Your task to perform on an android device: turn notification dots off Image 0: 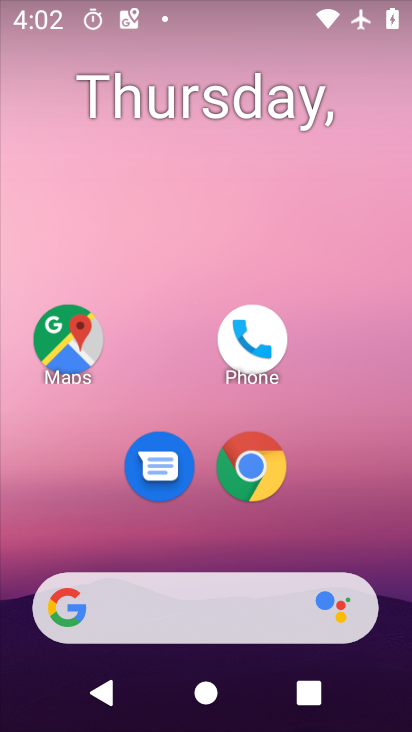
Step 0: drag from (201, 548) to (251, 98)
Your task to perform on an android device: turn notification dots off Image 1: 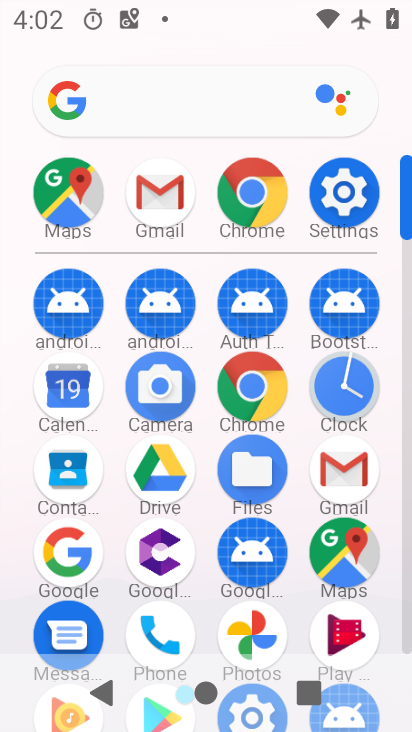
Step 1: click (345, 194)
Your task to perform on an android device: turn notification dots off Image 2: 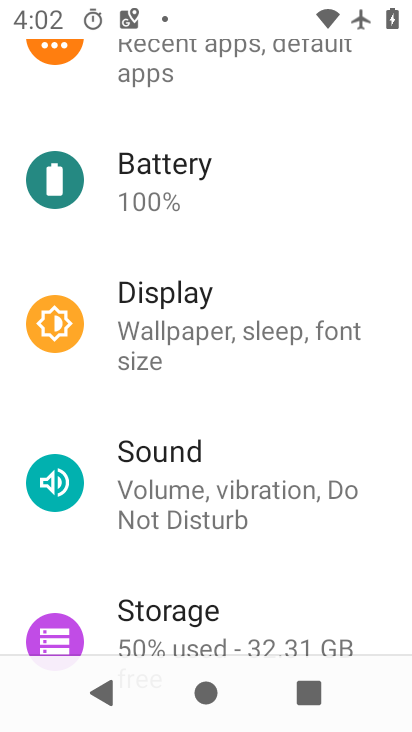
Step 2: drag from (200, 501) to (304, 107)
Your task to perform on an android device: turn notification dots off Image 3: 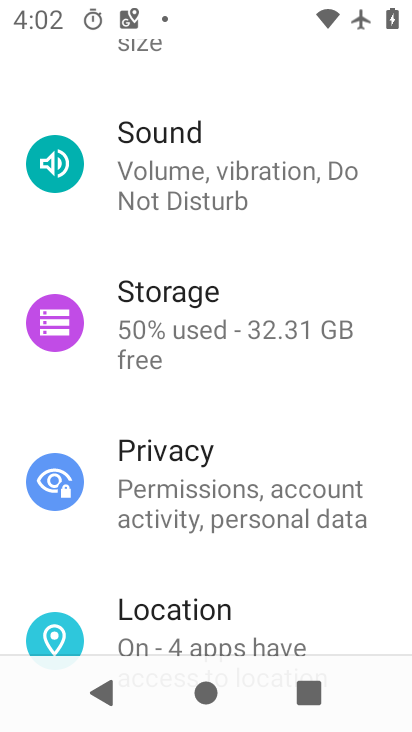
Step 3: drag from (225, 578) to (301, 268)
Your task to perform on an android device: turn notification dots off Image 4: 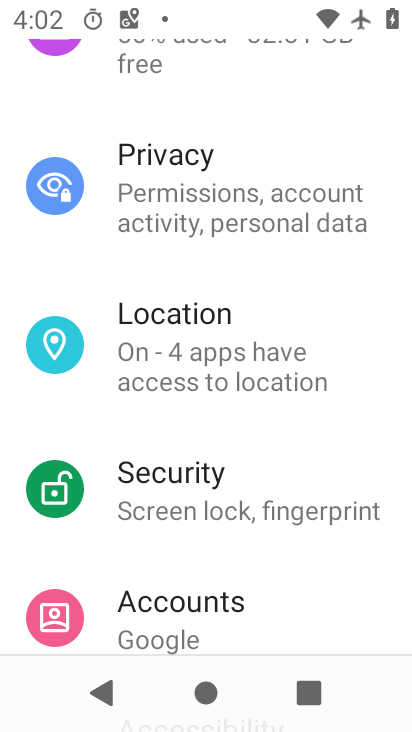
Step 4: drag from (214, 163) to (229, 729)
Your task to perform on an android device: turn notification dots off Image 5: 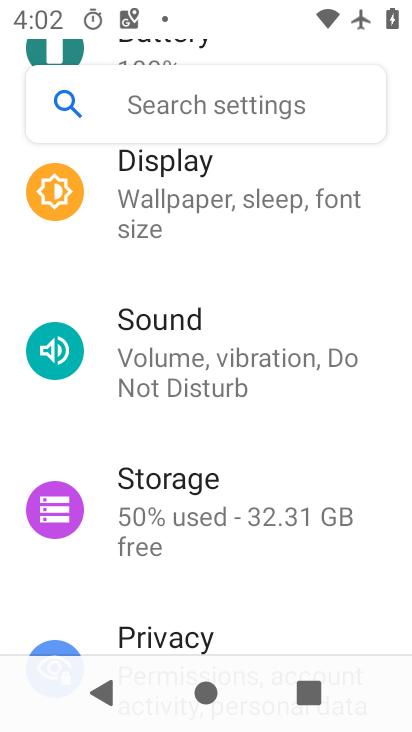
Step 5: drag from (274, 259) to (281, 730)
Your task to perform on an android device: turn notification dots off Image 6: 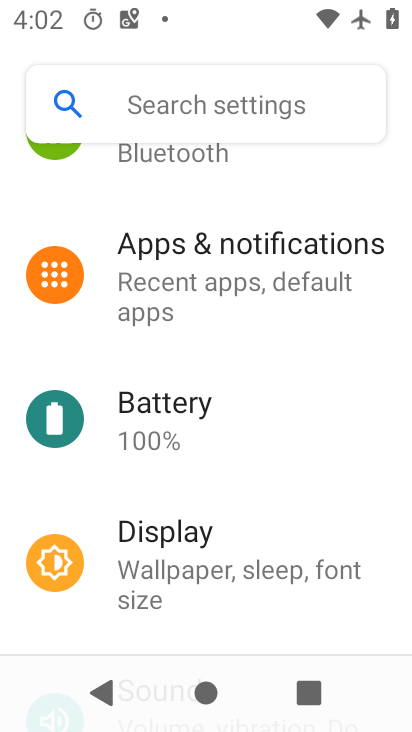
Step 6: click (205, 285)
Your task to perform on an android device: turn notification dots off Image 7: 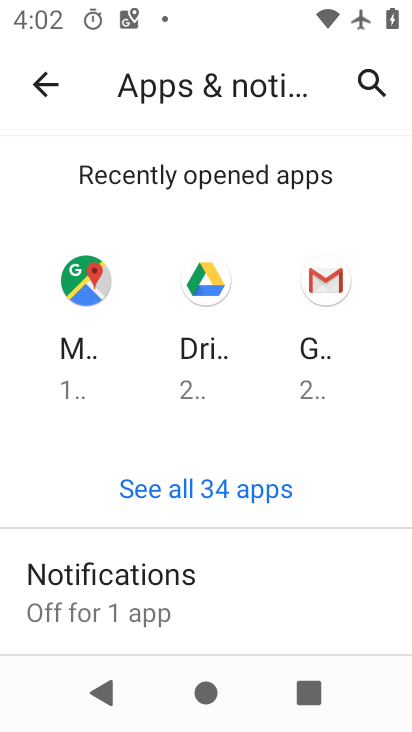
Step 7: click (153, 585)
Your task to perform on an android device: turn notification dots off Image 8: 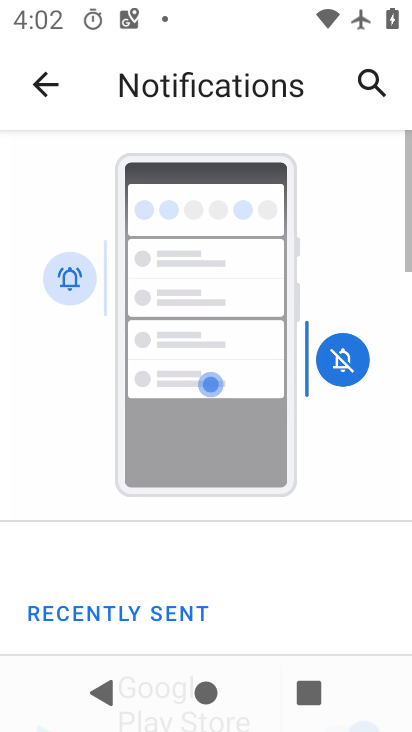
Step 8: drag from (221, 564) to (260, 157)
Your task to perform on an android device: turn notification dots off Image 9: 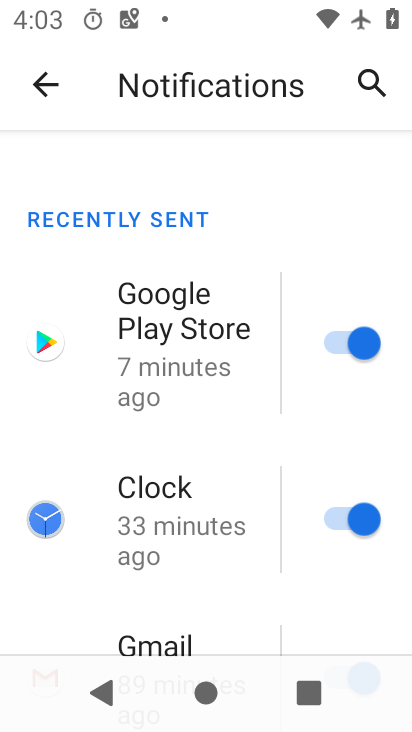
Step 9: drag from (209, 562) to (215, 149)
Your task to perform on an android device: turn notification dots off Image 10: 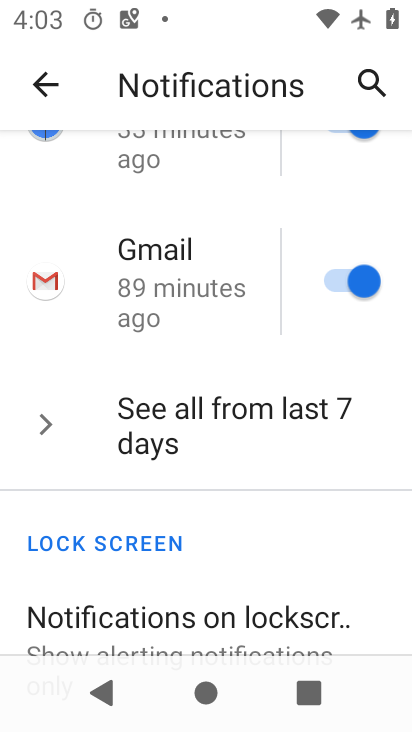
Step 10: drag from (222, 581) to (259, 295)
Your task to perform on an android device: turn notification dots off Image 11: 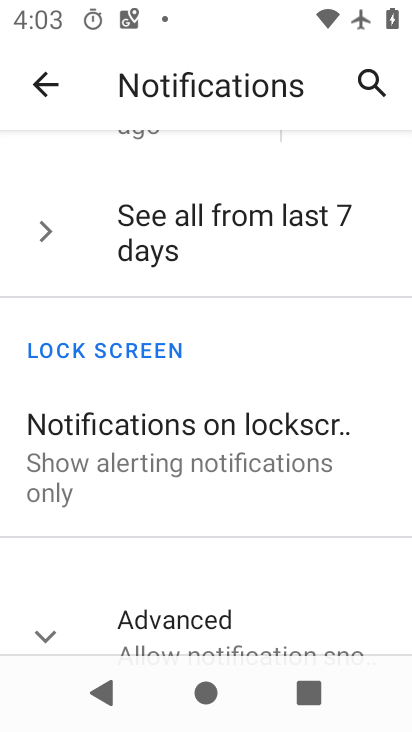
Step 11: drag from (242, 620) to (249, 310)
Your task to perform on an android device: turn notification dots off Image 12: 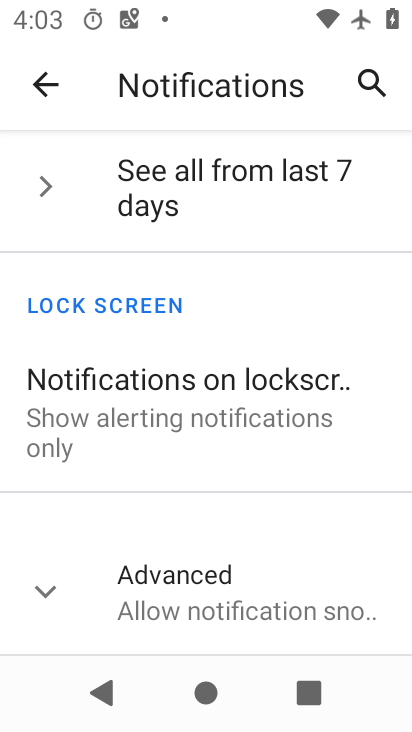
Step 12: click (196, 588)
Your task to perform on an android device: turn notification dots off Image 13: 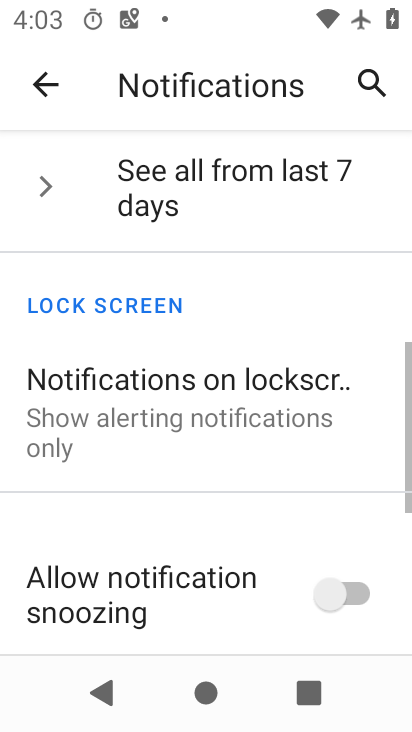
Step 13: drag from (194, 583) to (240, 196)
Your task to perform on an android device: turn notification dots off Image 14: 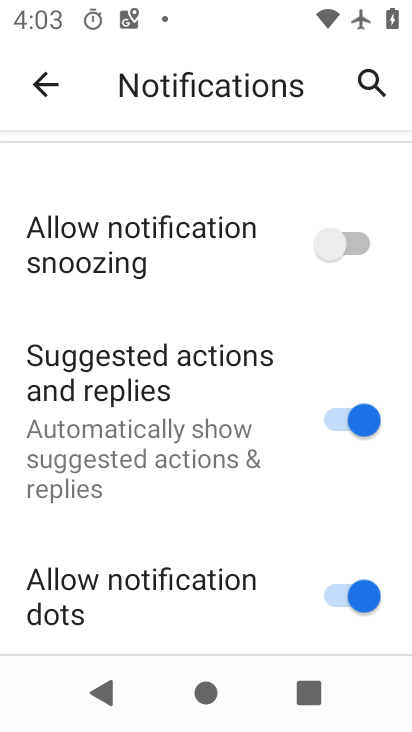
Step 14: click (346, 603)
Your task to perform on an android device: turn notification dots off Image 15: 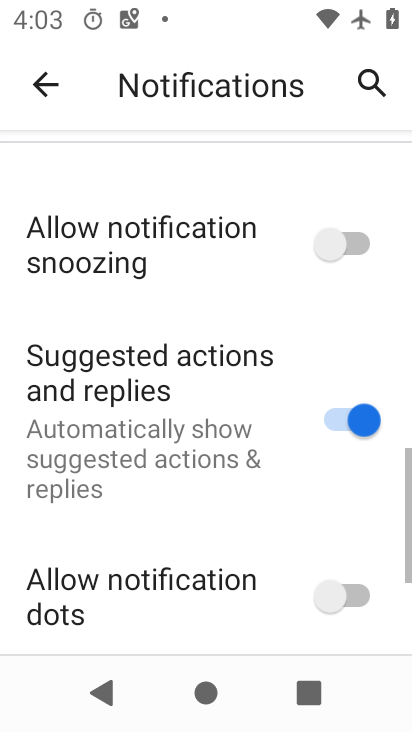
Step 15: task complete